Your task to perform on an android device: open device folders in google photos Image 0: 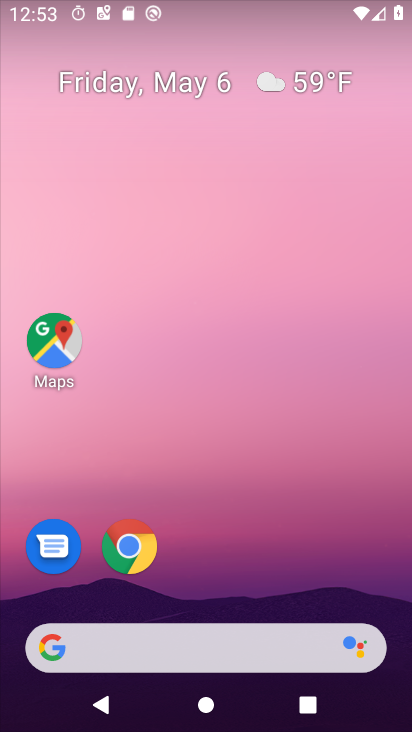
Step 0: click (55, 346)
Your task to perform on an android device: open device folders in google photos Image 1: 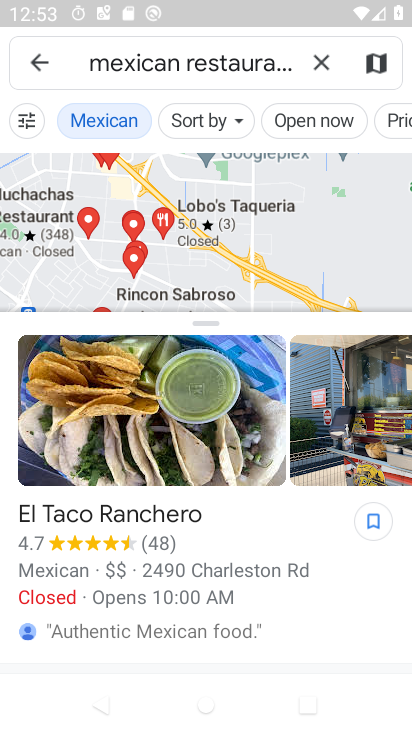
Step 1: press home button
Your task to perform on an android device: open device folders in google photos Image 2: 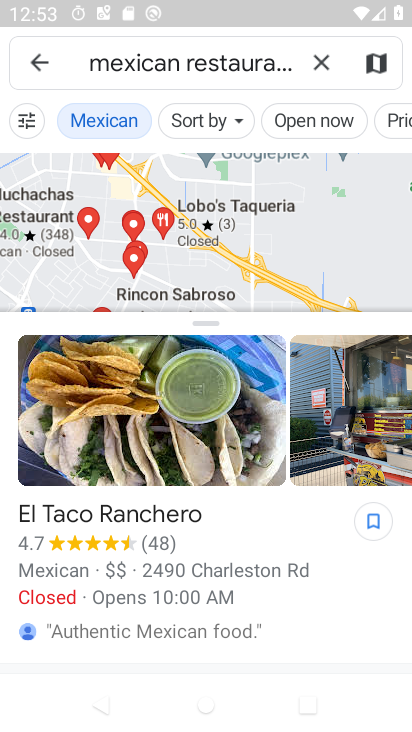
Step 2: press home button
Your task to perform on an android device: open device folders in google photos Image 3: 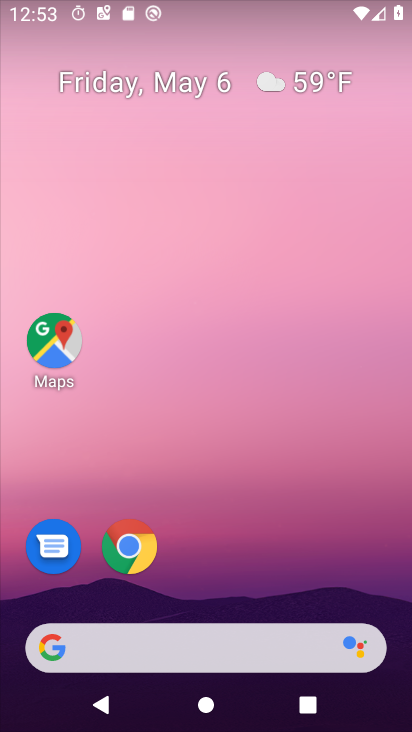
Step 3: drag from (313, 593) to (277, 224)
Your task to perform on an android device: open device folders in google photos Image 4: 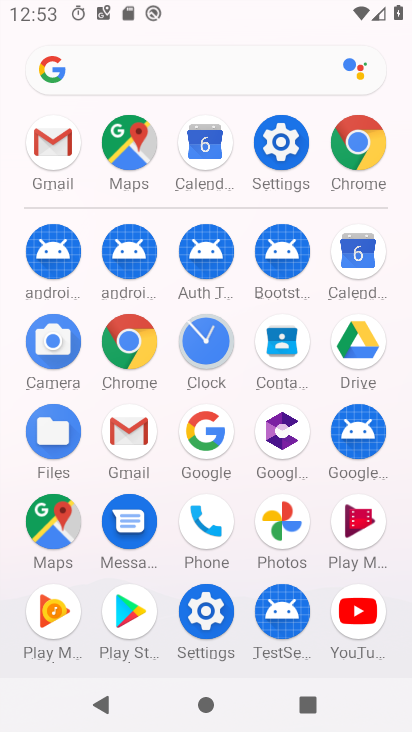
Step 4: click (271, 508)
Your task to perform on an android device: open device folders in google photos Image 5: 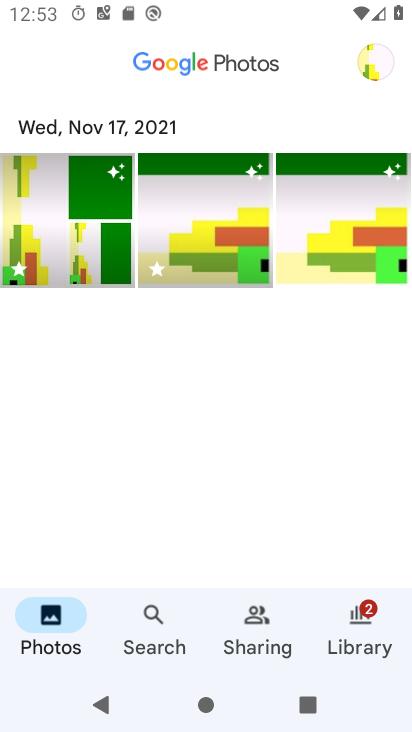
Step 5: click (154, 616)
Your task to perform on an android device: open device folders in google photos Image 6: 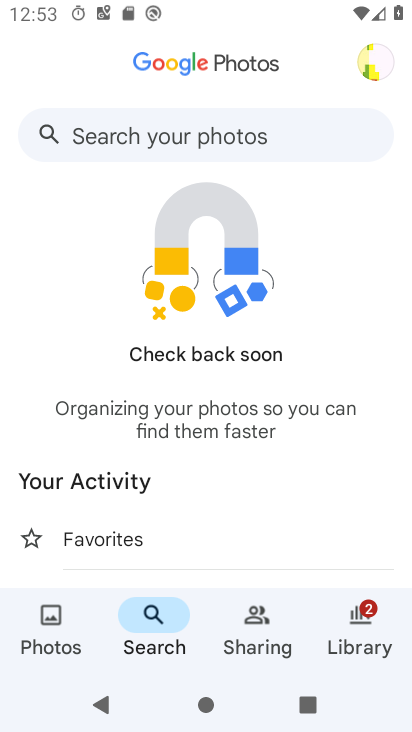
Step 6: click (273, 125)
Your task to perform on an android device: open device folders in google photos Image 7: 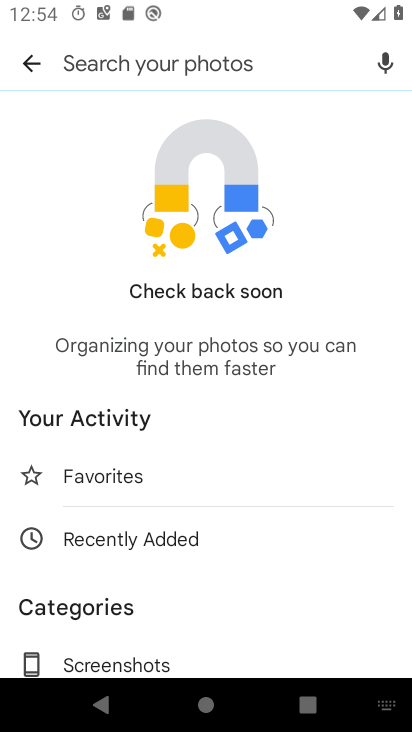
Step 7: type "device"
Your task to perform on an android device: open device folders in google photos Image 8: 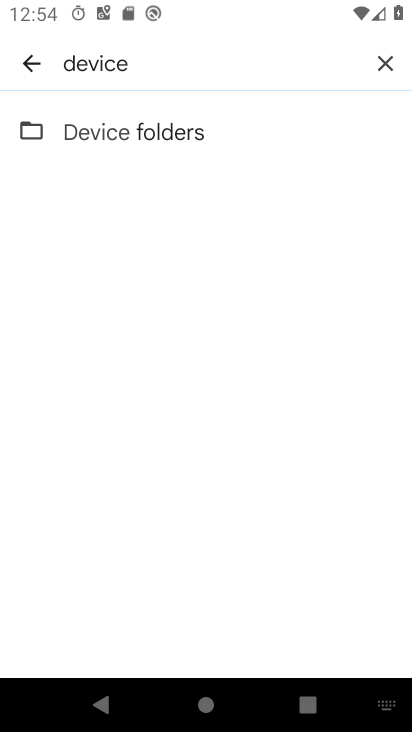
Step 8: click (178, 135)
Your task to perform on an android device: open device folders in google photos Image 9: 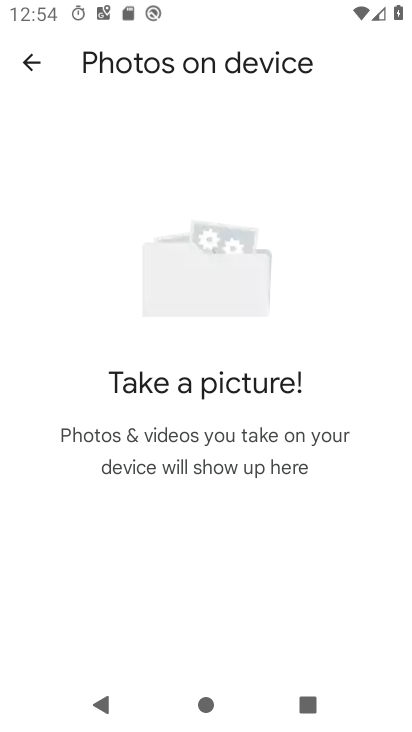
Step 9: task complete